Your task to perform on an android device: Open calendar and show me the second week of next month Image 0: 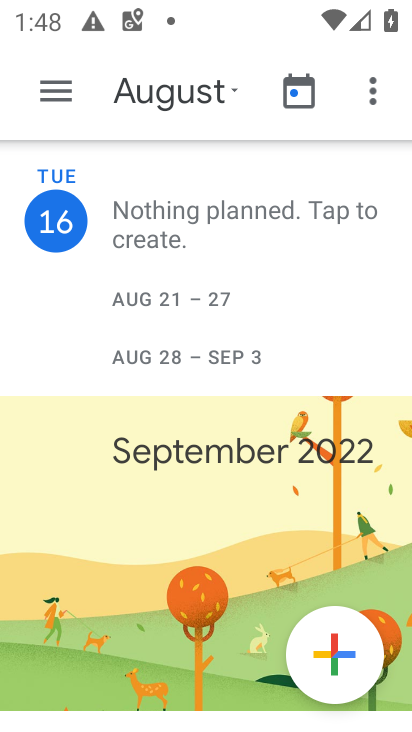
Step 0: task complete